Your task to perform on an android device: open device folders in google photos Image 0: 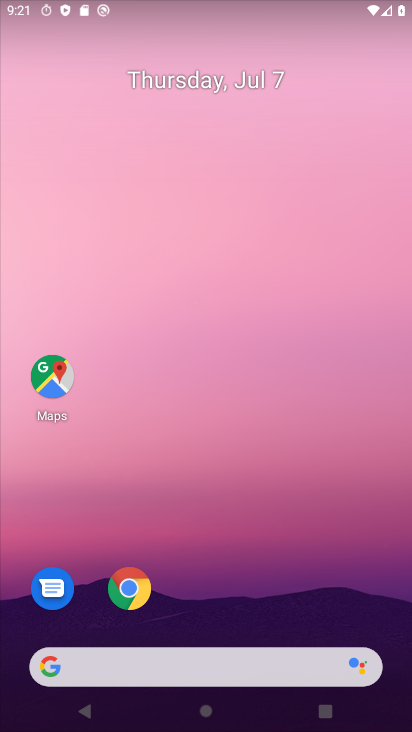
Step 0: drag from (231, 673) to (140, 348)
Your task to perform on an android device: open device folders in google photos Image 1: 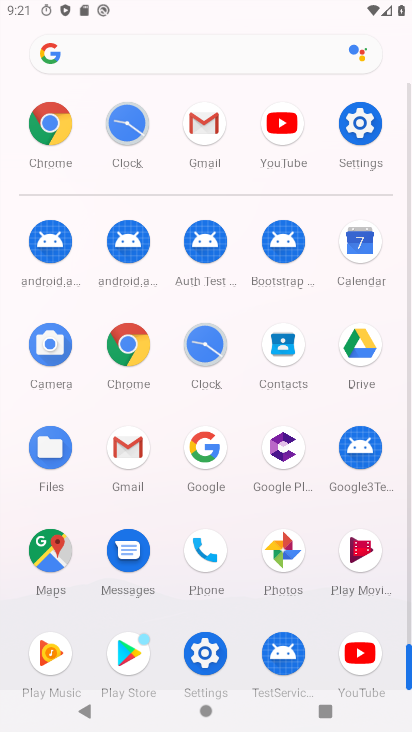
Step 1: click (289, 564)
Your task to perform on an android device: open device folders in google photos Image 2: 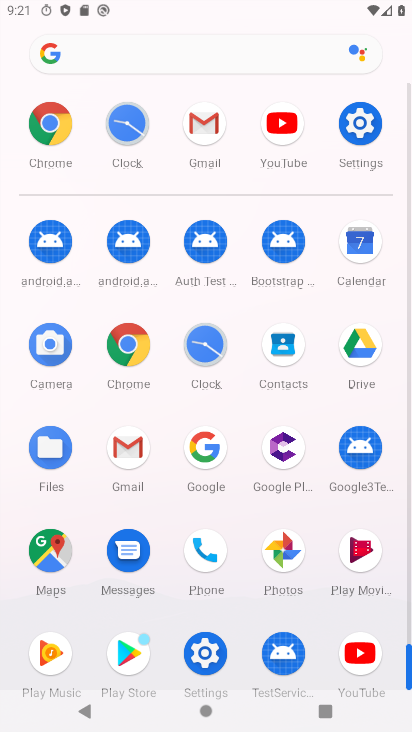
Step 2: click (290, 550)
Your task to perform on an android device: open device folders in google photos Image 3: 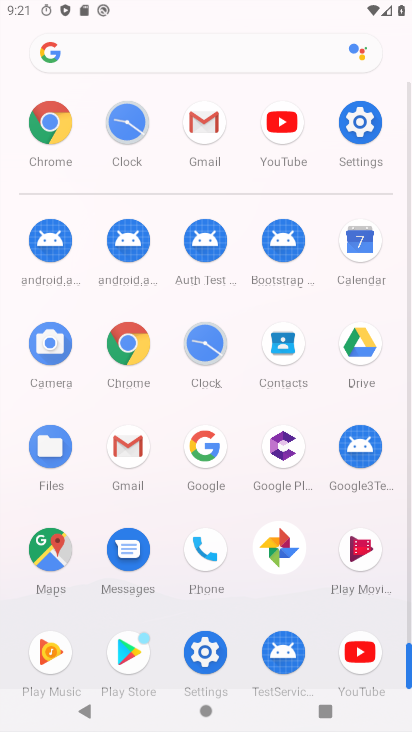
Step 3: click (290, 552)
Your task to perform on an android device: open device folders in google photos Image 4: 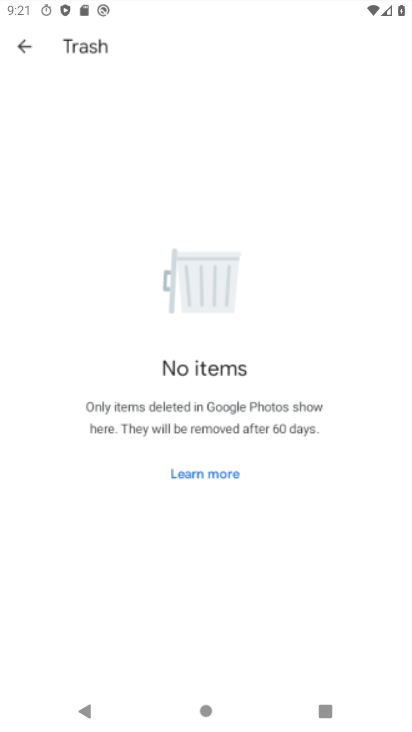
Step 4: click (289, 553)
Your task to perform on an android device: open device folders in google photos Image 5: 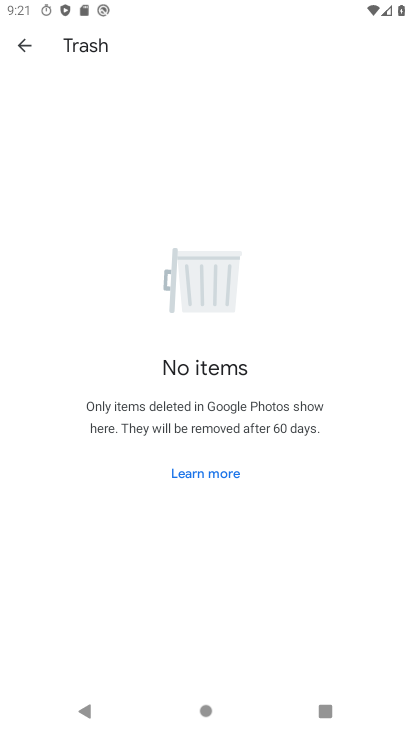
Step 5: click (20, 53)
Your task to perform on an android device: open device folders in google photos Image 6: 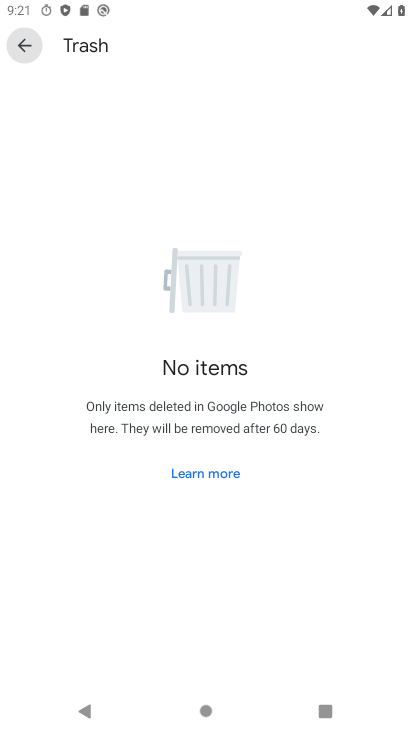
Step 6: click (20, 53)
Your task to perform on an android device: open device folders in google photos Image 7: 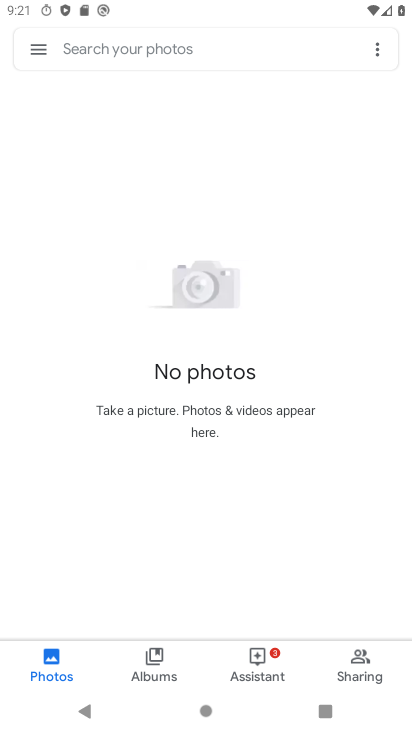
Step 7: click (42, 48)
Your task to perform on an android device: open device folders in google photos Image 8: 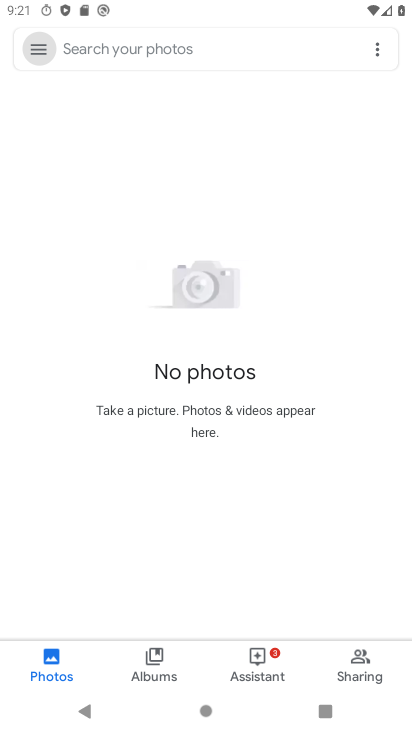
Step 8: click (42, 48)
Your task to perform on an android device: open device folders in google photos Image 9: 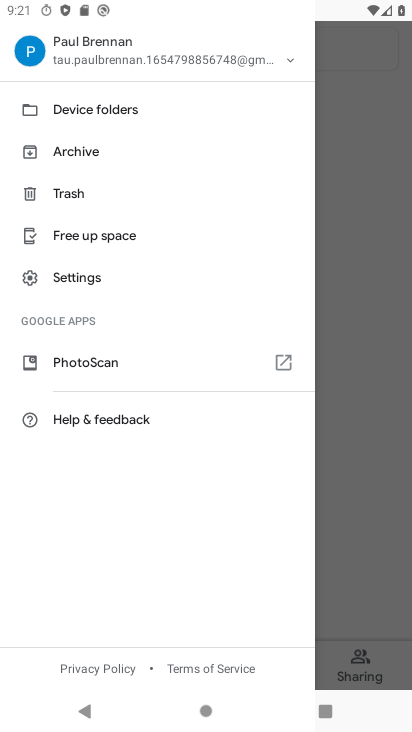
Step 9: click (100, 108)
Your task to perform on an android device: open device folders in google photos Image 10: 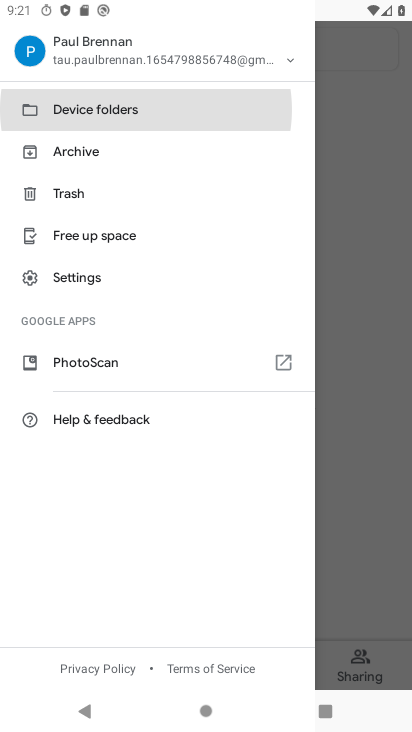
Step 10: click (100, 107)
Your task to perform on an android device: open device folders in google photos Image 11: 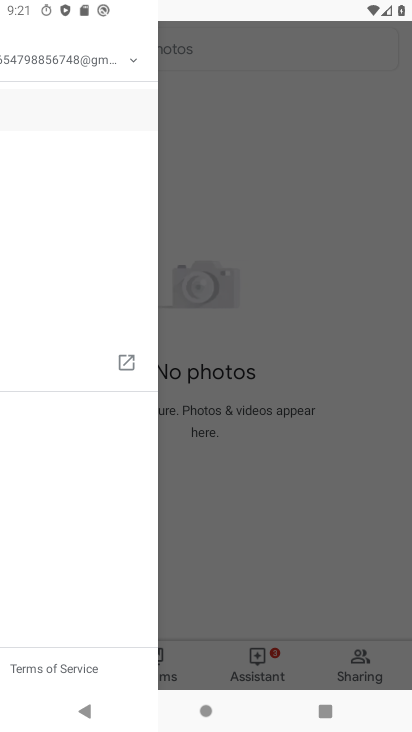
Step 11: click (100, 107)
Your task to perform on an android device: open device folders in google photos Image 12: 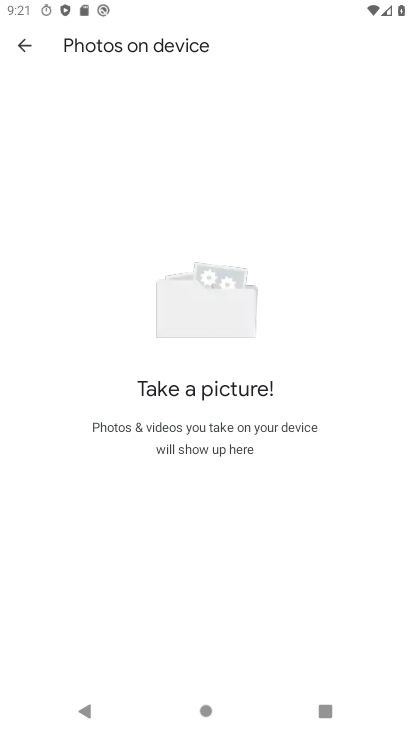
Step 12: task complete